Your task to perform on an android device: open sync settings in chrome Image 0: 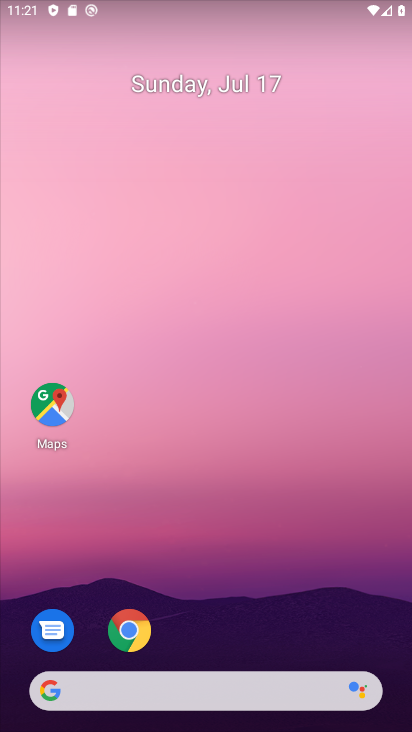
Step 0: click (129, 637)
Your task to perform on an android device: open sync settings in chrome Image 1: 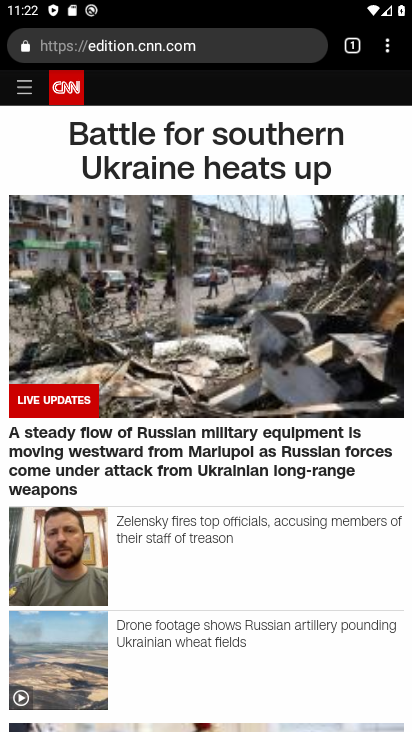
Step 1: click (385, 47)
Your task to perform on an android device: open sync settings in chrome Image 2: 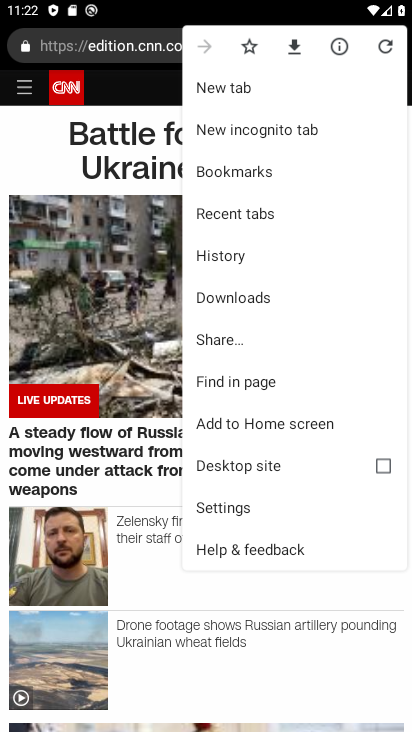
Step 2: click (233, 514)
Your task to perform on an android device: open sync settings in chrome Image 3: 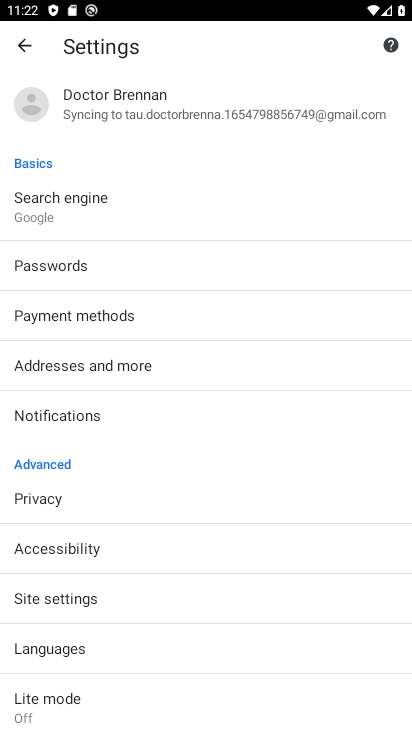
Step 3: click (122, 114)
Your task to perform on an android device: open sync settings in chrome Image 4: 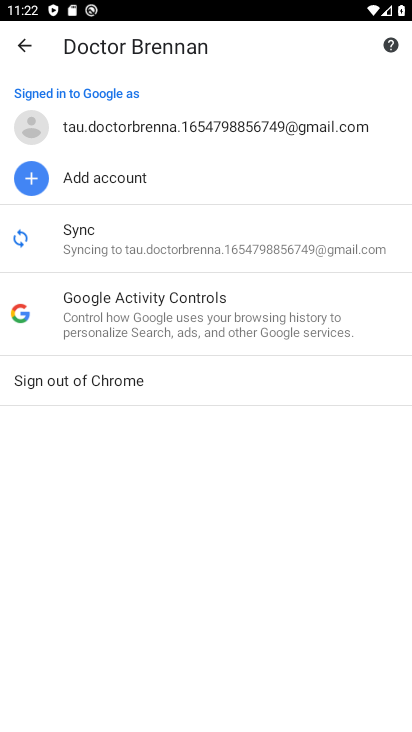
Step 4: click (125, 242)
Your task to perform on an android device: open sync settings in chrome Image 5: 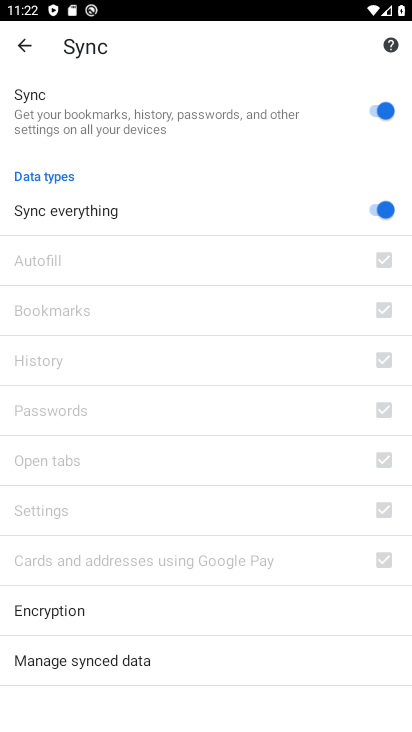
Step 5: task complete